Your task to perform on an android device: turn off wifi Image 0: 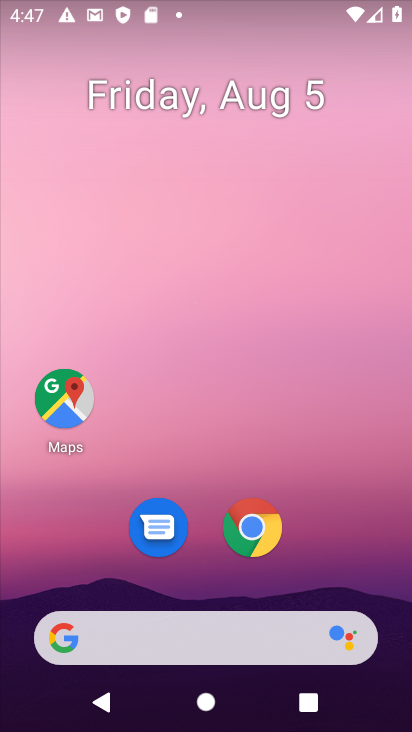
Step 0: drag from (214, 531) to (229, 223)
Your task to perform on an android device: turn off wifi Image 1: 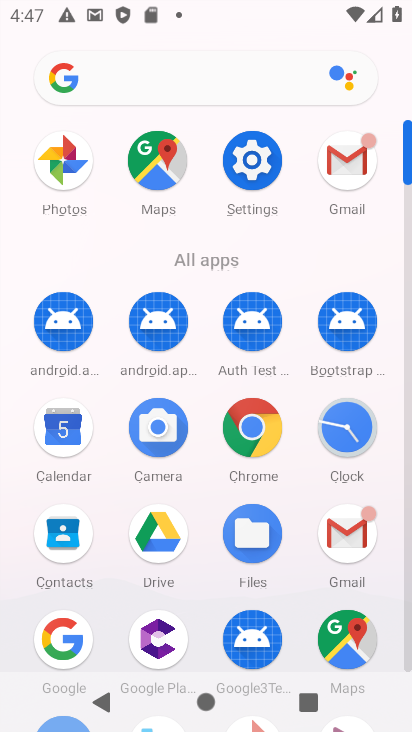
Step 1: click (254, 154)
Your task to perform on an android device: turn off wifi Image 2: 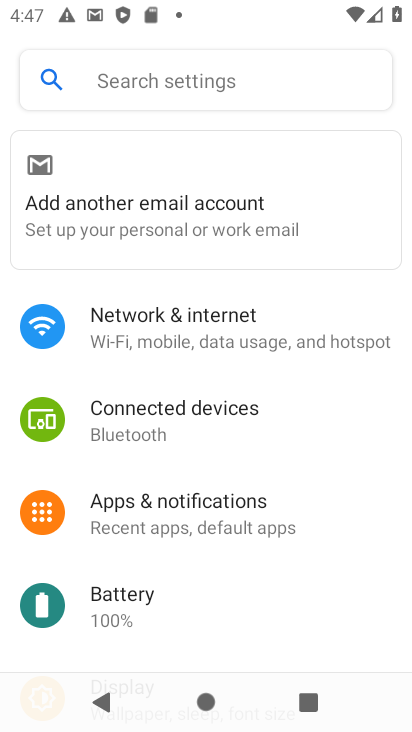
Step 2: click (142, 339)
Your task to perform on an android device: turn off wifi Image 3: 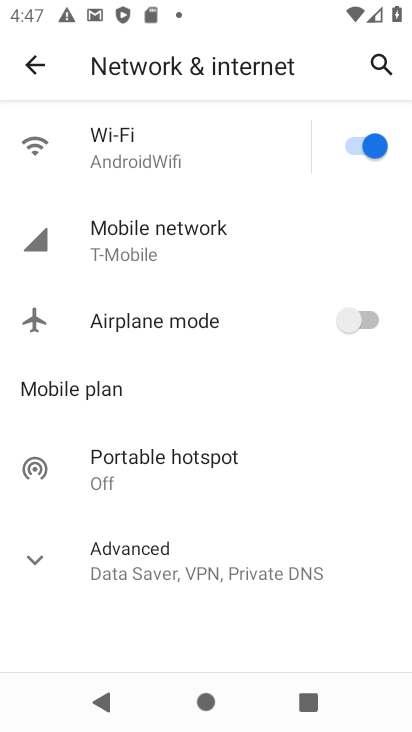
Step 3: click (359, 152)
Your task to perform on an android device: turn off wifi Image 4: 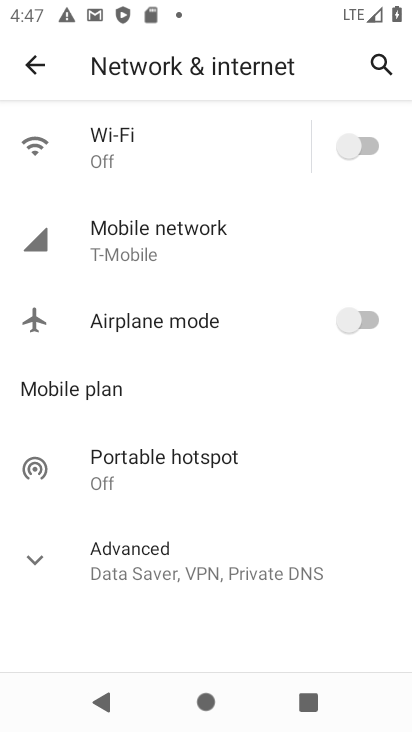
Step 4: task complete